Your task to perform on an android device: find snoozed emails in the gmail app Image 0: 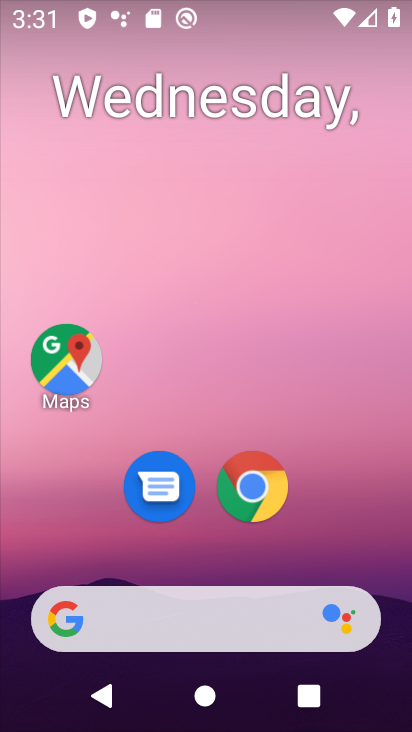
Step 0: drag from (219, 575) to (229, 239)
Your task to perform on an android device: find snoozed emails in the gmail app Image 1: 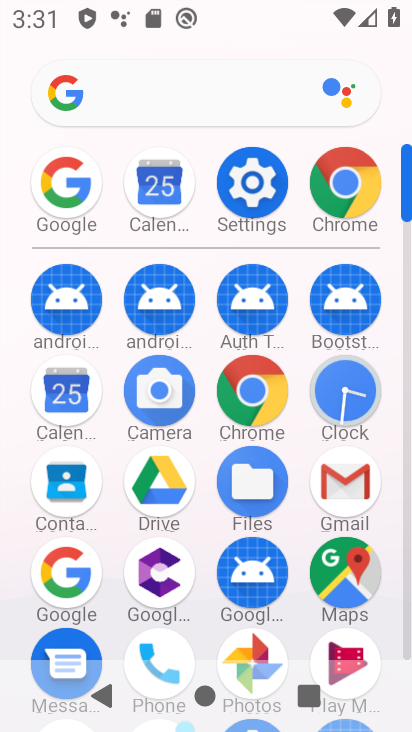
Step 1: click (361, 487)
Your task to perform on an android device: find snoozed emails in the gmail app Image 2: 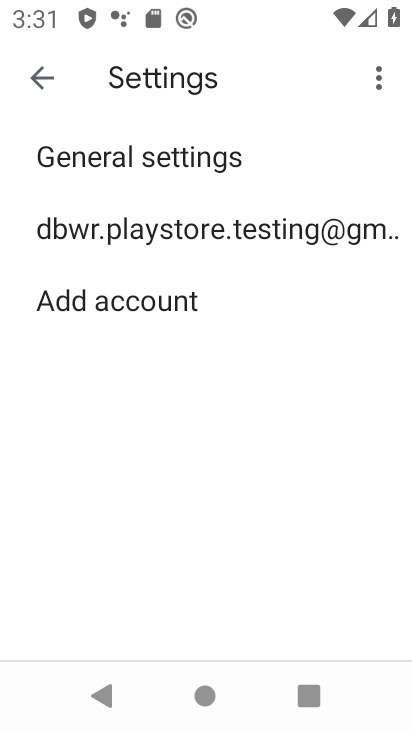
Step 2: click (37, 78)
Your task to perform on an android device: find snoozed emails in the gmail app Image 3: 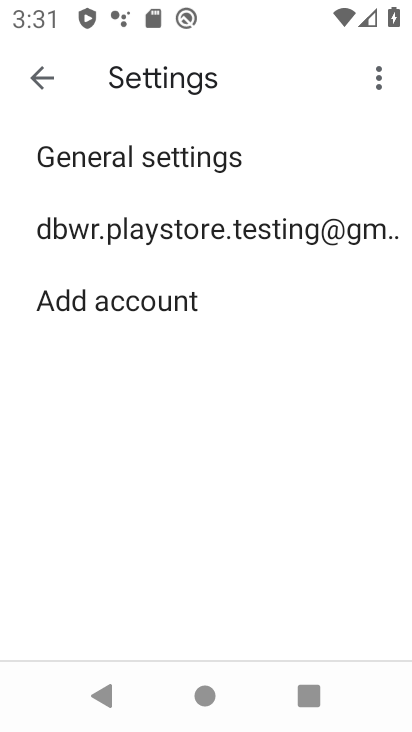
Step 3: click (31, 79)
Your task to perform on an android device: find snoozed emails in the gmail app Image 4: 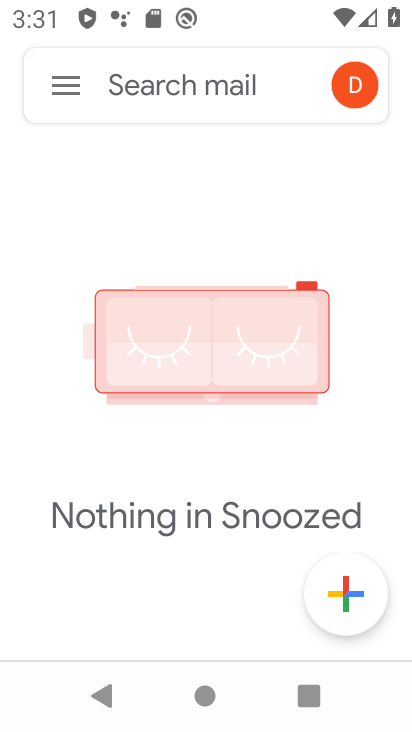
Step 4: task complete